Your task to perform on an android device: Go to internet settings Image 0: 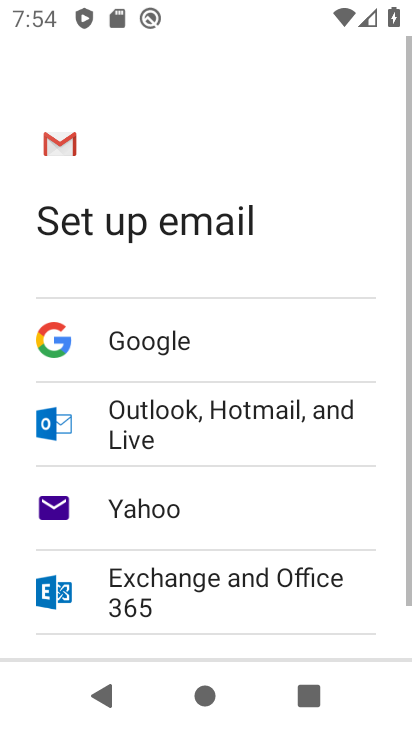
Step 0: press home button
Your task to perform on an android device: Go to internet settings Image 1: 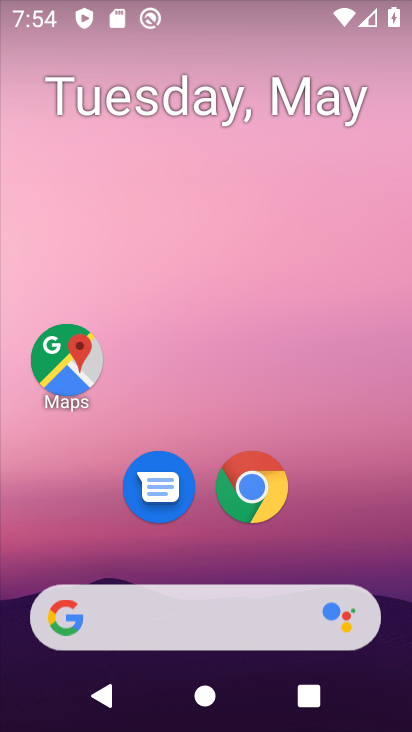
Step 1: drag from (236, 569) to (263, 108)
Your task to perform on an android device: Go to internet settings Image 2: 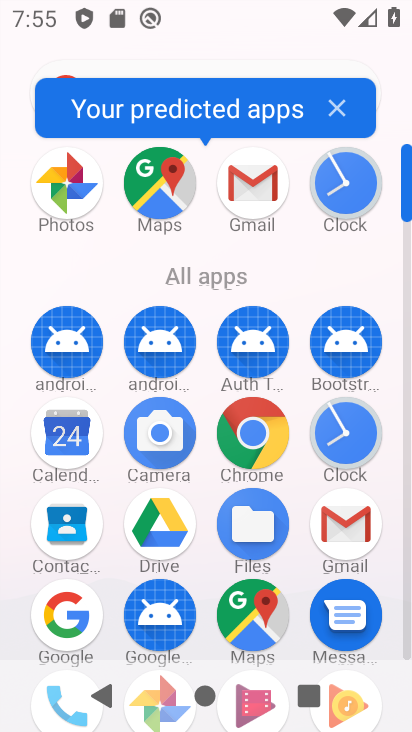
Step 2: drag from (287, 279) to (269, 25)
Your task to perform on an android device: Go to internet settings Image 3: 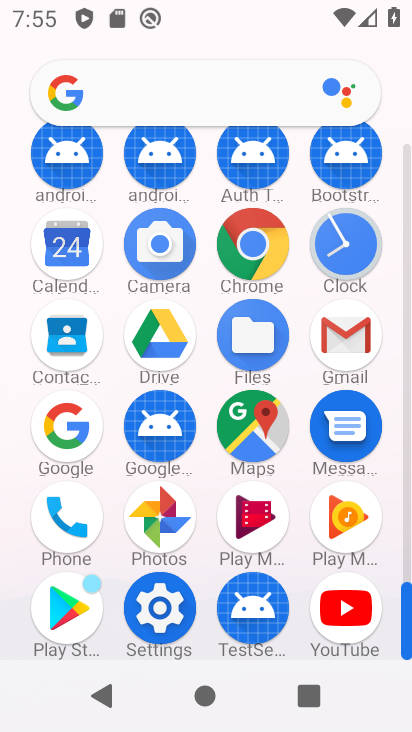
Step 3: click (158, 609)
Your task to perform on an android device: Go to internet settings Image 4: 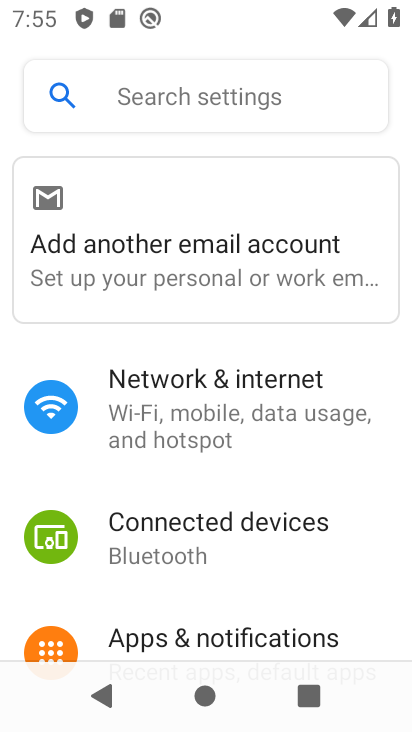
Step 4: click (155, 386)
Your task to perform on an android device: Go to internet settings Image 5: 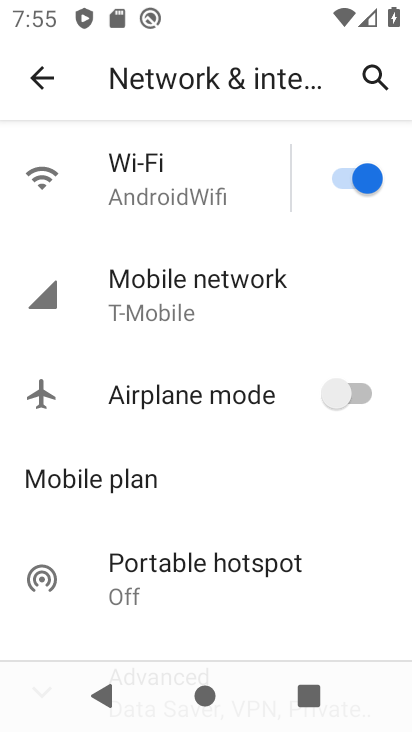
Step 5: task complete